Your task to perform on an android device: toggle notifications settings in the gmail app Image 0: 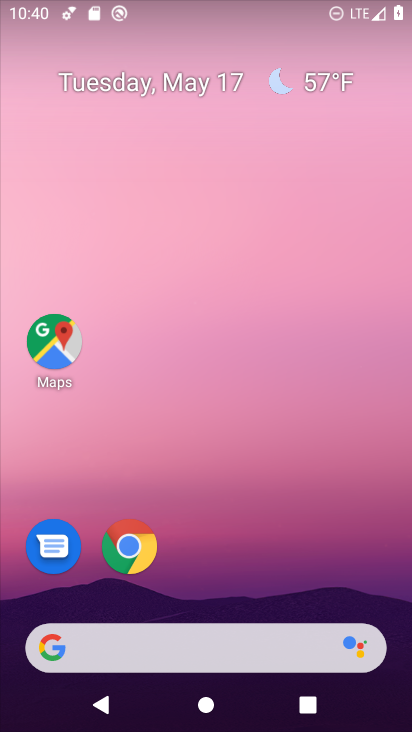
Step 0: drag from (297, 590) to (313, 5)
Your task to perform on an android device: toggle notifications settings in the gmail app Image 1: 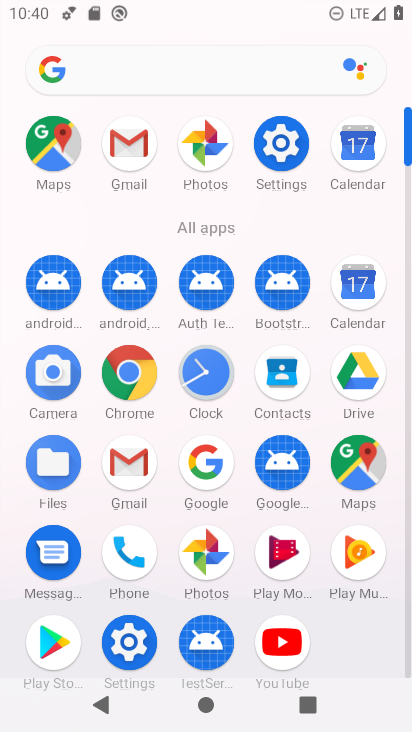
Step 1: click (122, 169)
Your task to perform on an android device: toggle notifications settings in the gmail app Image 2: 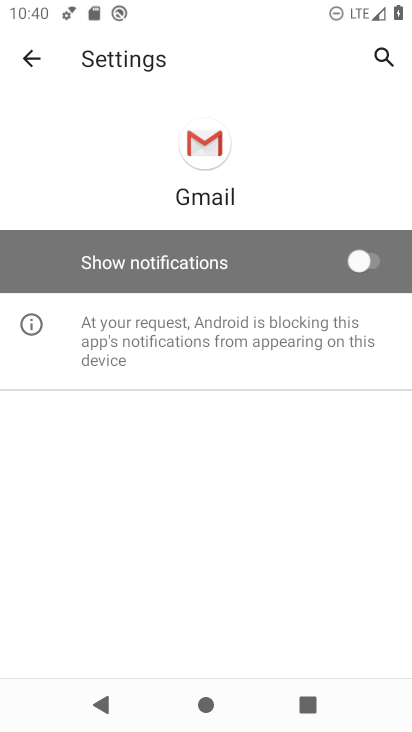
Step 2: click (362, 264)
Your task to perform on an android device: toggle notifications settings in the gmail app Image 3: 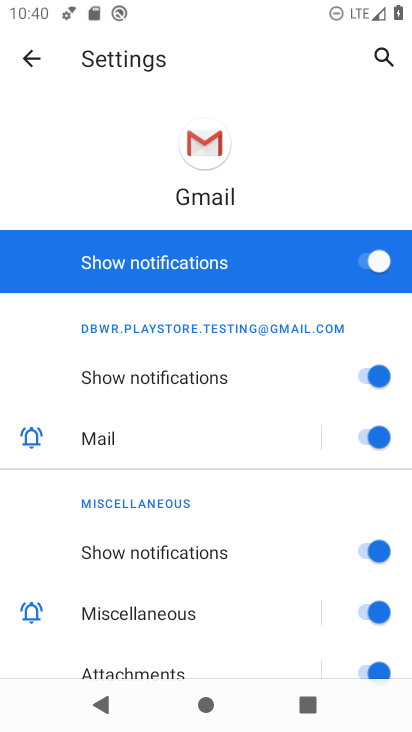
Step 3: task complete